Your task to perform on an android device: Open Reddit.com Image 0: 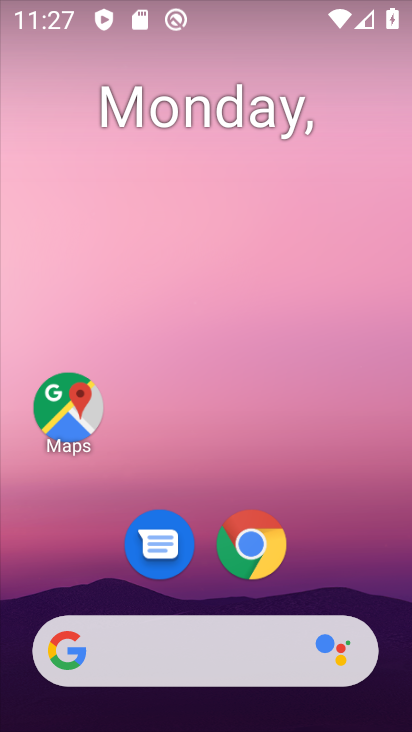
Step 0: click (247, 547)
Your task to perform on an android device: Open Reddit.com Image 1: 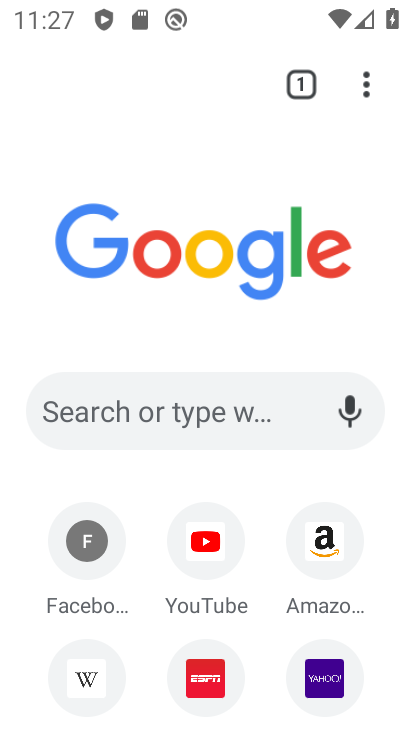
Step 1: click (203, 413)
Your task to perform on an android device: Open Reddit.com Image 2: 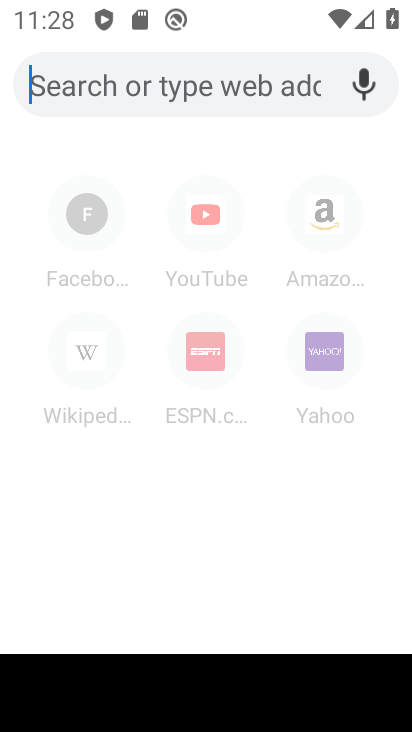
Step 2: type "Reddit.com"
Your task to perform on an android device: Open Reddit.com Image 3: 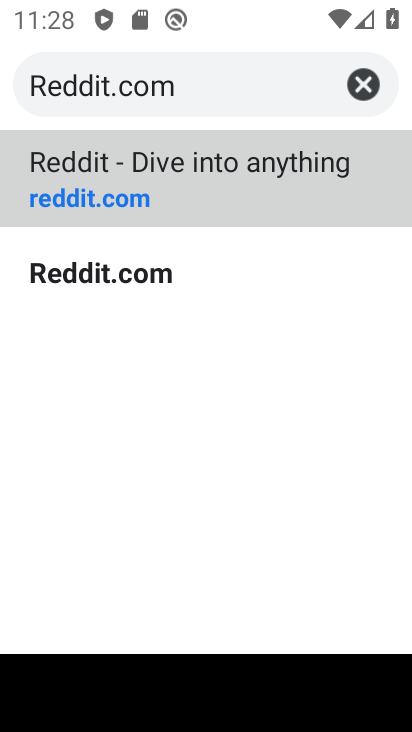
Step 3: click (172, 280)
Your task to perform on an android device: Open Reddit.com Image 4: 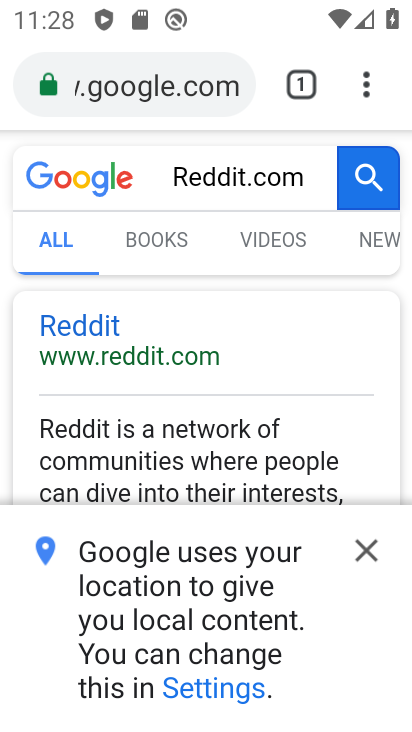
Step 4: click (211, 331)
Your task to perform on an android device: Open Reddit.com Image 5: 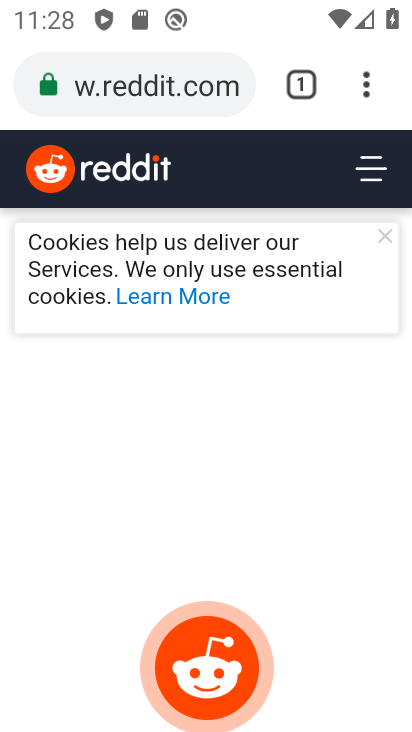
Step 5: task complete